Your task to perform on an android device: Is it going to rain tomorrow? Image 0: 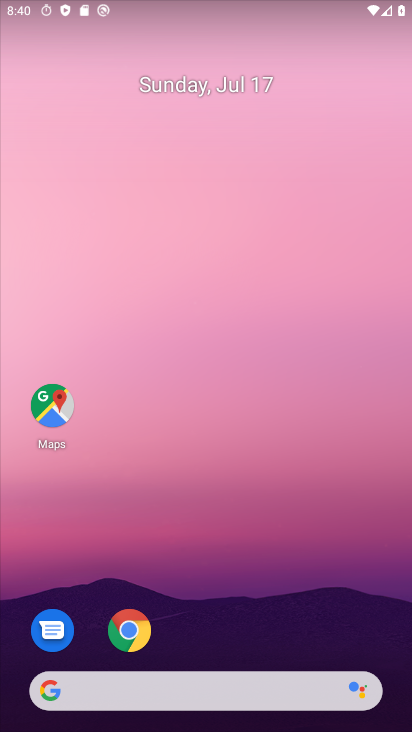
Step 0: click (119, 686)
Your task to perform on an android device: Is it going to rain tomorrow? Image 1: 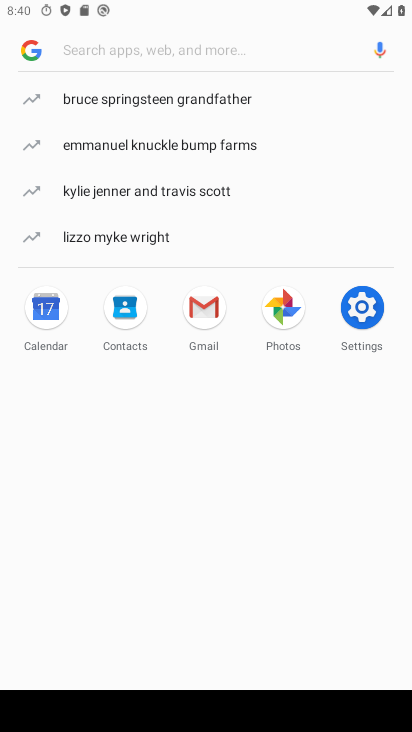
Step 1: type "Is it going to rain tomorrow?"
Your task to perform on an android device: Is it going to rain tomorrow? Image 2: 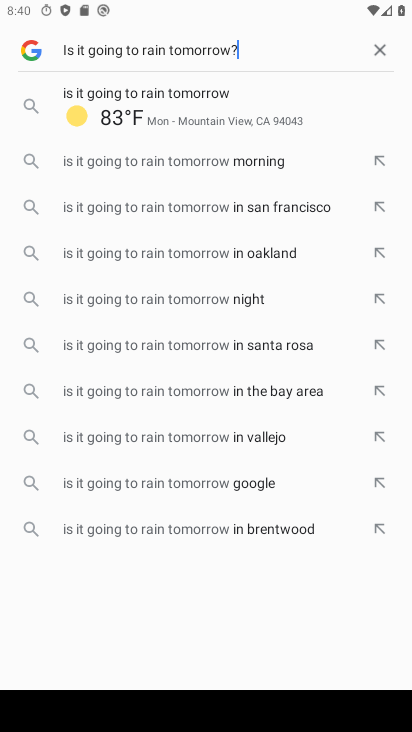
Step 2: type ""
Your task to perform on an android device: Is it going to rain tomorrow? Image 3: 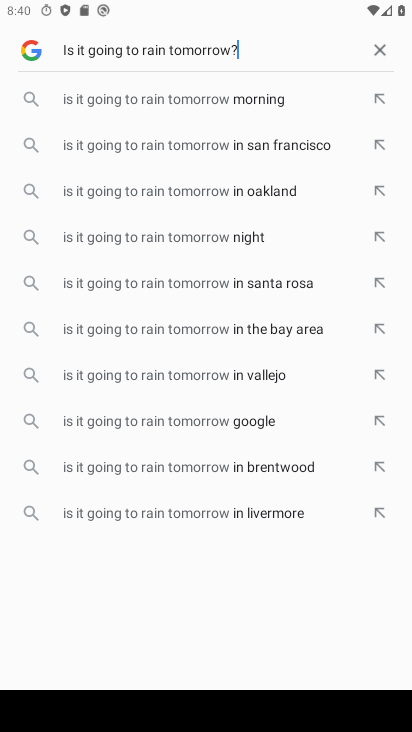
Step 3: type ""
Your task to perform on an android device: Is it going to rain tomorrow? Image 4: 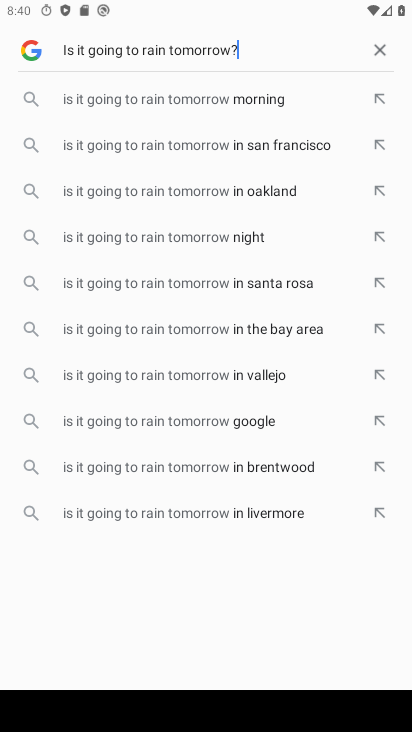
Step 4: type ""
Your task to perform on an android device: Is it going to rain tomorrow? Image 5: 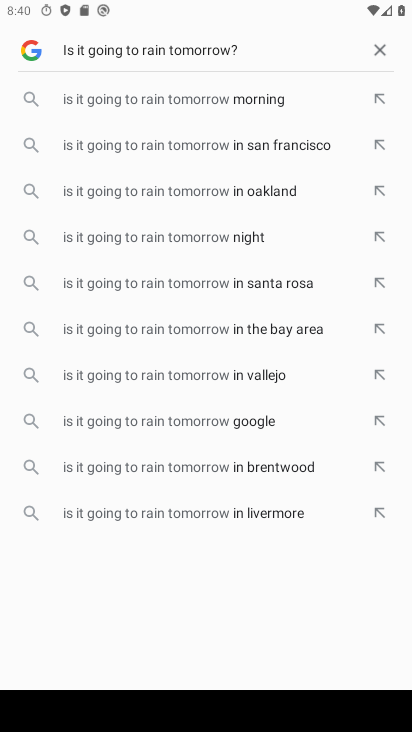
Step 5: type ""
Your task to perform on an android device: Is it going to rain tomorrow? Image 6: 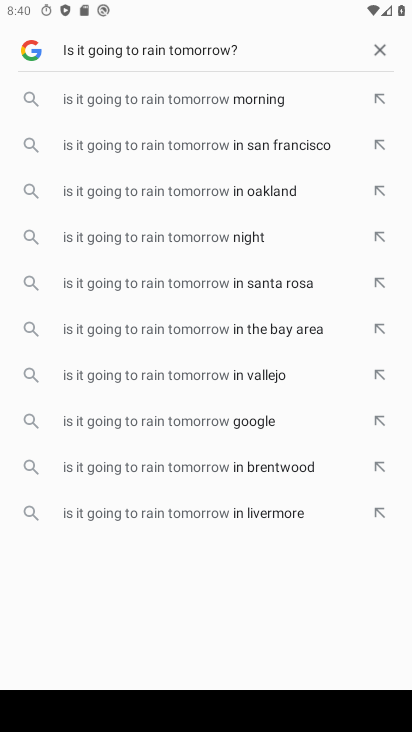
Step 6: type ""
Your task to perform on an android device: Is it going to rain tomorrow? Image 7: 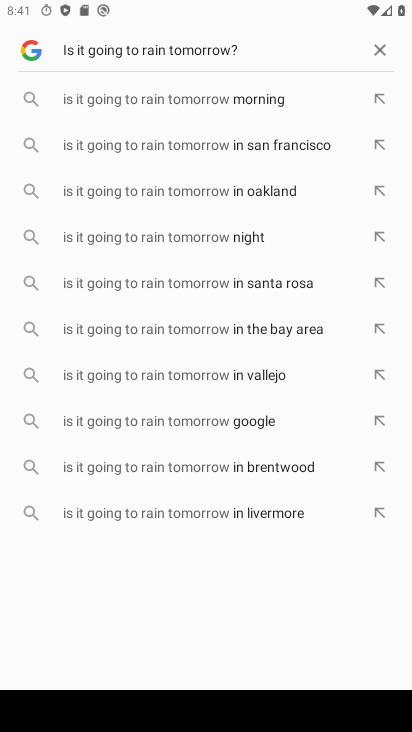
Step 7: task complete